Your task to perform on an android device: visit the assistant section in the google photos Image 0: 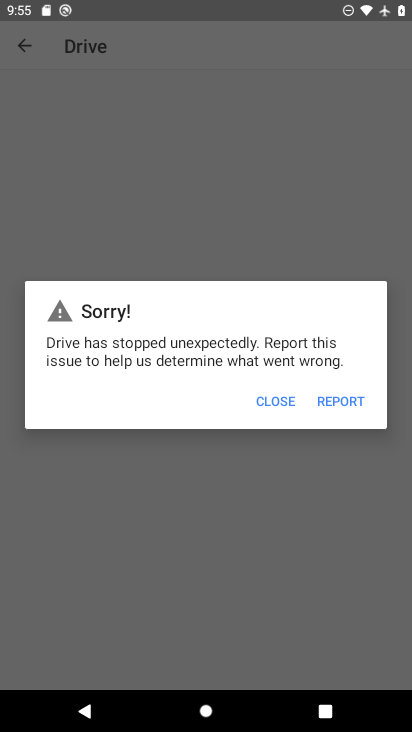
Step 0: press home button
Your task to perform on an android device: visit the assistant section in the google photos Image 1: 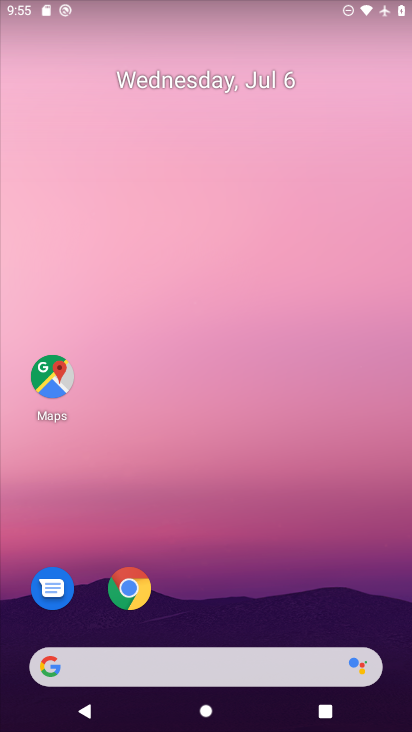
Step 1: drag from (217, 660) to (376, 88)
Your task to perform on an android device: visit the assistant section in the google photos Image 2: 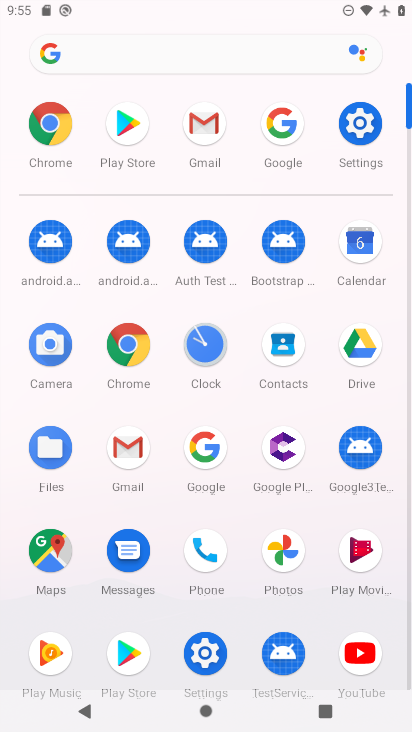
Step 2: click (291, 540)
Your task to perform on an android device: visit the assistant section in the google photos Image 3: 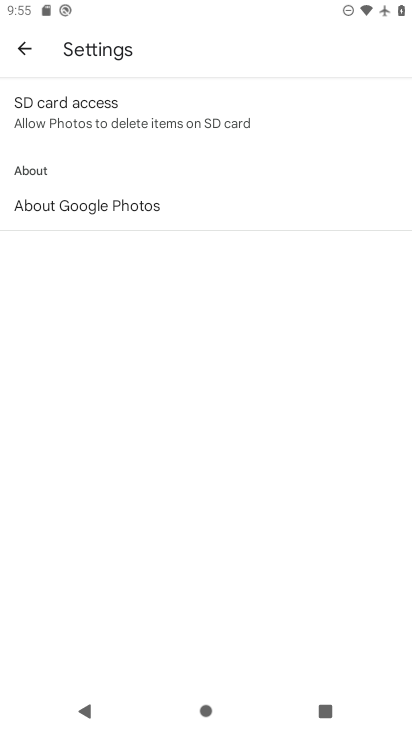
Step 3: click (24, 50)
Your task to perform on an android device: visit the assistant section in the google photos Image 4: 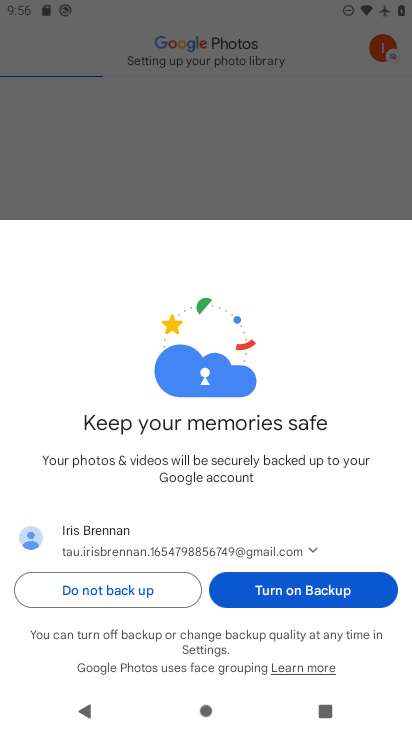
Step 4: click (313, 589)
Your task to perform on an android device: visit the assistant section in the google photos Image 5: 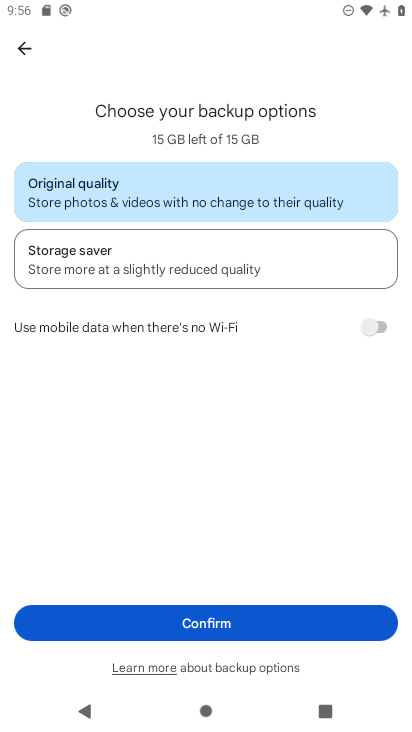
Step 5: click (209, 624)
Your task to perform on an android device: visit the assistant section in the google photos Image 6: 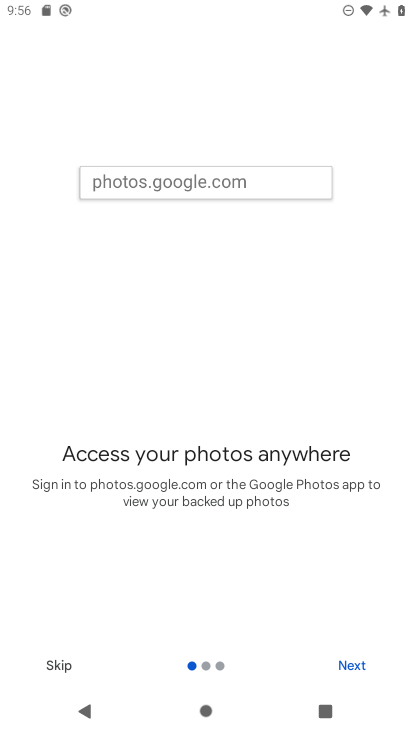
Step 6: click (354, 663)
Your task to perform on an android device: visit the assistant section in the google photos Image 7: 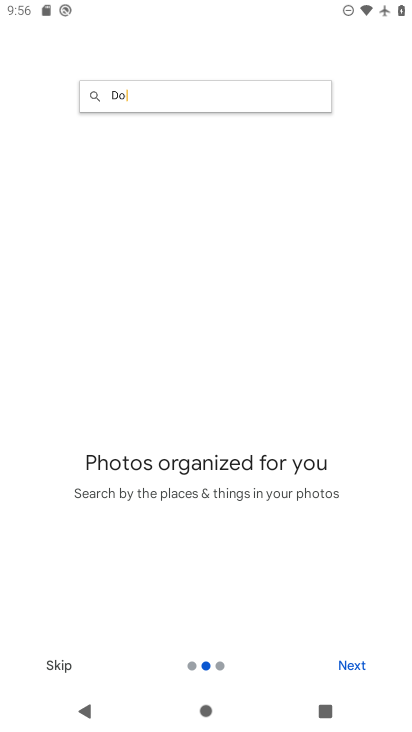
Step 7: click (355, 663)
Your task to perform on an android device: visit the assistant section in the google photos Image 8: 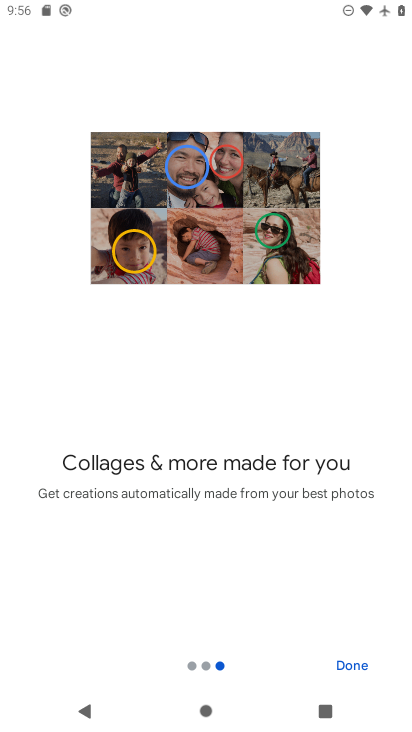
Step 8: click (355, 663)
Your task to perform on an android device: visit the assistant section in the google photos Image 9: 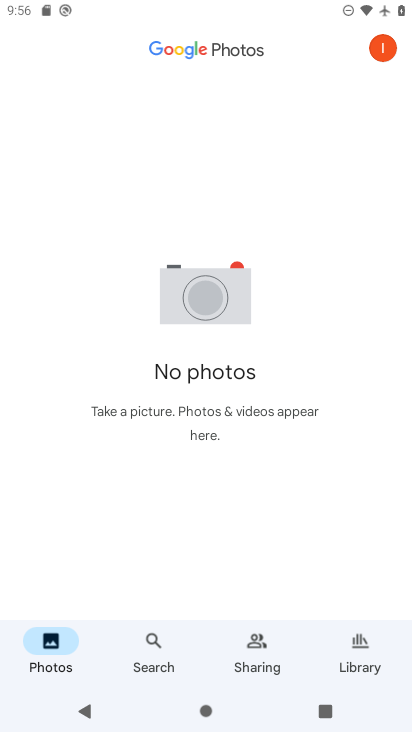
Step 9: task complete